Your task to perform on an android device: Search for flights from Zurich to Buenos aires Image 0: 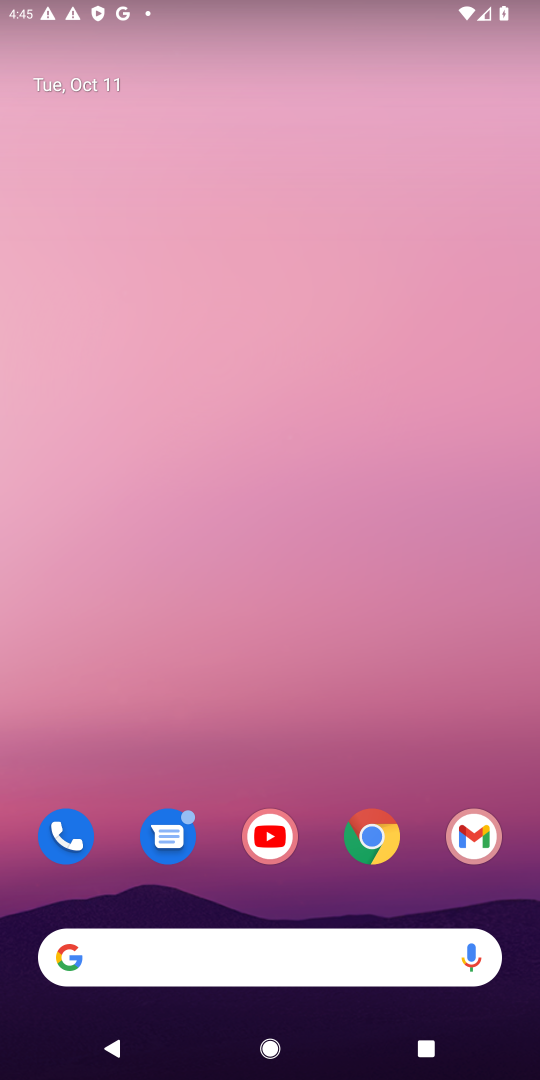
Step 0: click (372, 851)
Your task to perform on an android device: Search for flights from Zurich to Buenos aires Image 1: 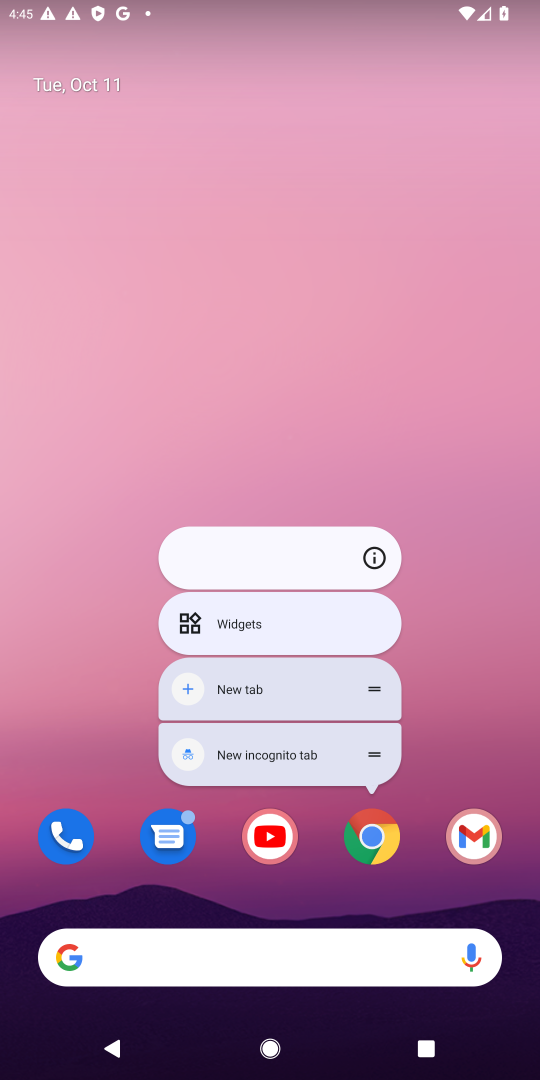
Step 1: click (372, 844)
Your task to perform on an android device: Search for flights from Zurich to Buenos aires Image 2: 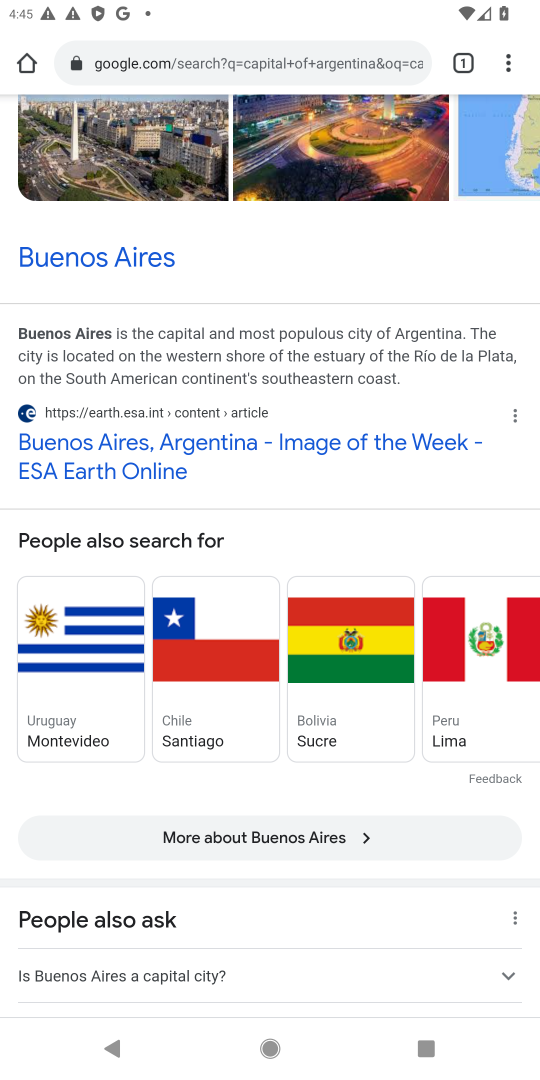
Step 2: click (241, 62)
Your task to perform on an android device: Search for flights from Zurich to Buenos aires Image 3: 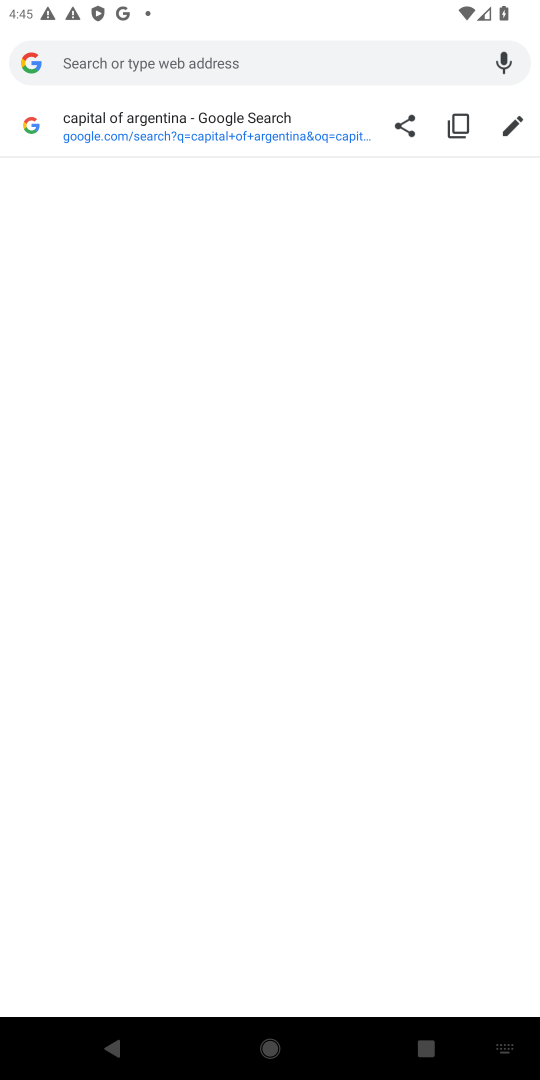
Step 3: type "flights from Zurich to Buenos aires"
Your task to perform on an android device: Search for flights from Zurich to Buenos aires Image 4: 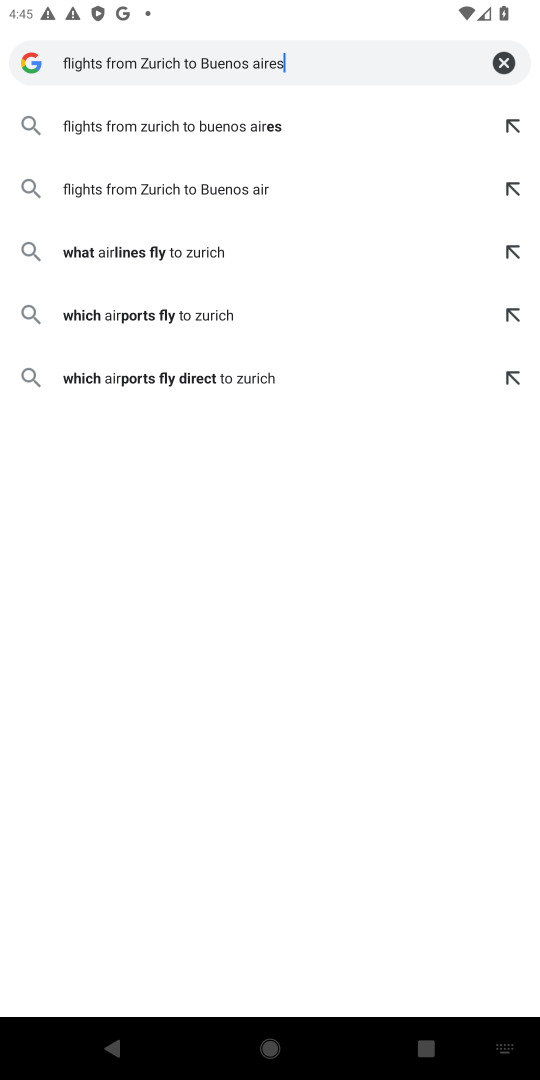
Step 4: press enter
Your task to perform on an android device: Search for flights from Zurich to Buenos aires Image 5: 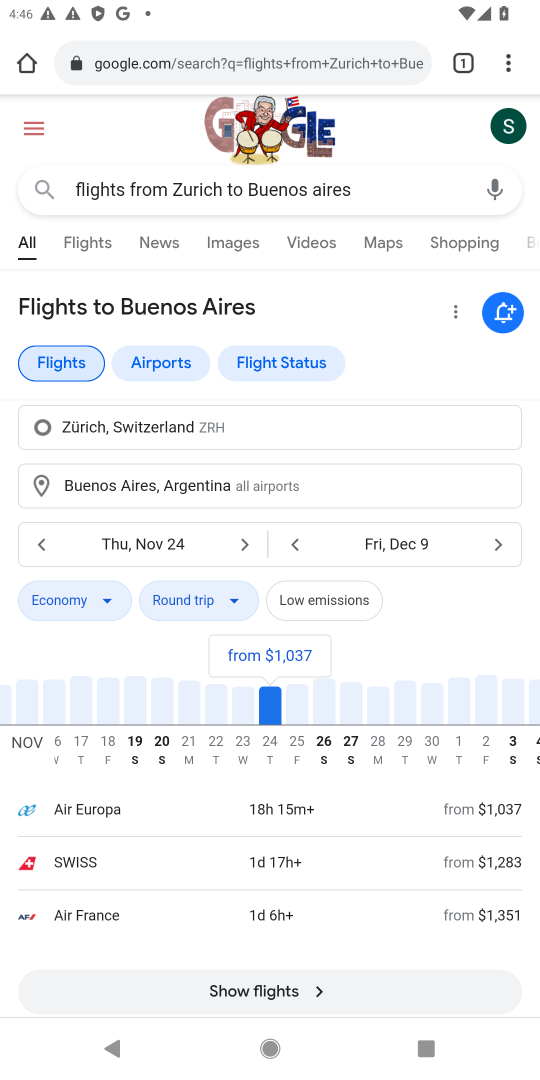
Step 5: drag from (222, 825) to (383, 264)
Your task to perform on an android device: Search for flights from Zurich to Buenos aires Image 6: 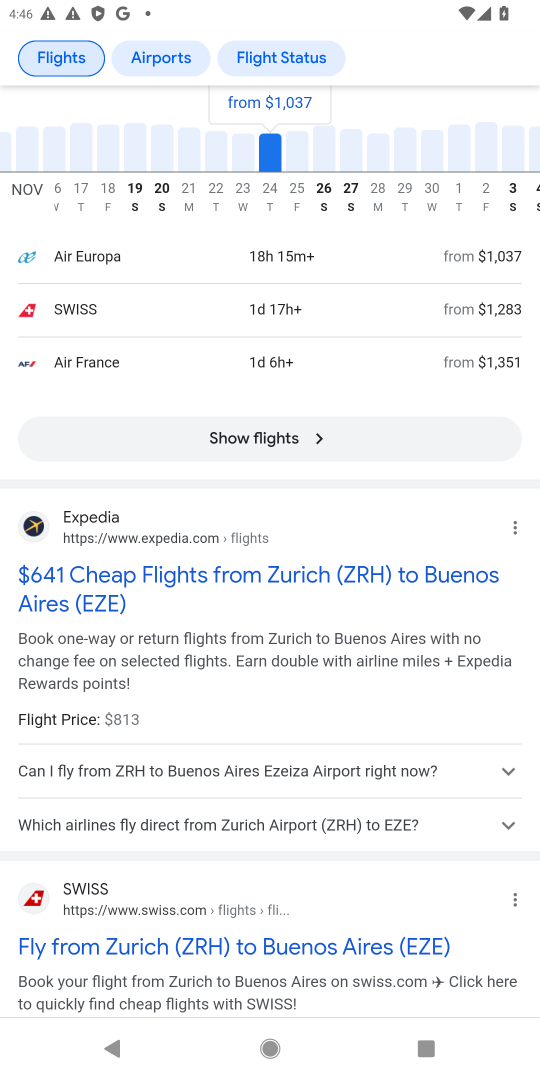
Step 6: click (249, 436)
Your task to perform on an android device: Search for flights from Zurich to Buenos aires Image 7: 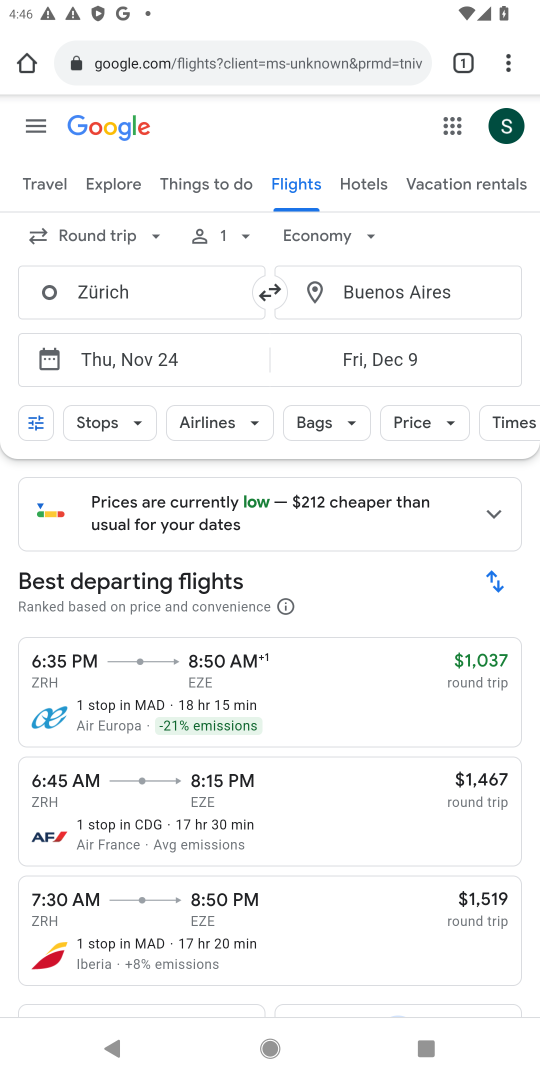
Step 7: task complete